Your task to perform on an android device: check data usage Image 0: 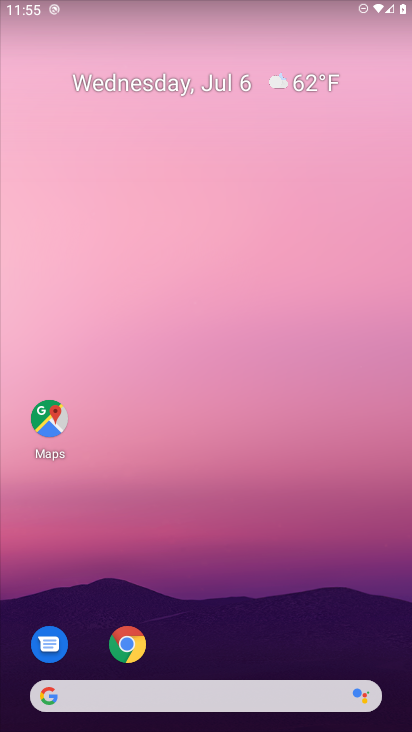
Step 0: press home button
Your task to perform on an android device: check data usage Image 1: 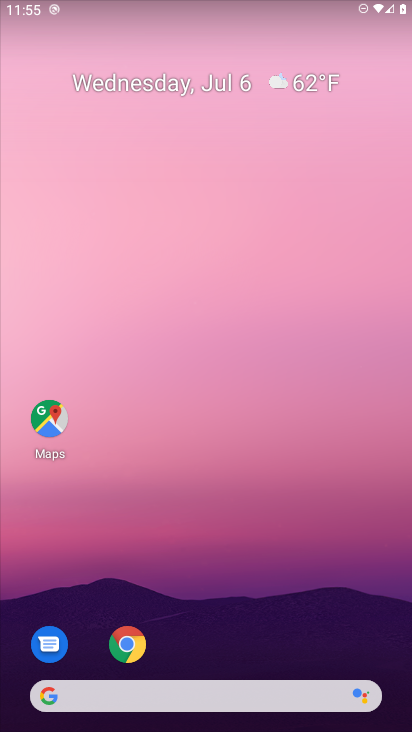
Step 1: drag from (256, 580) to (186, 16)
Your task to perform on an android device: check data usage Image 2: 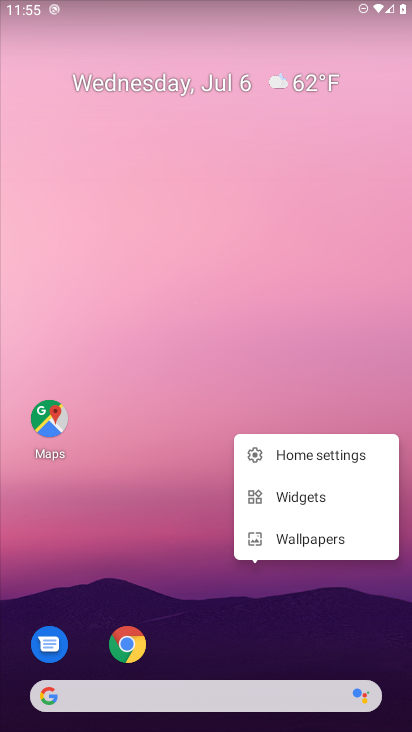
Step 2: drag from (160, 505) to (204, 45)
Your task to perform on an android device: check data usage Image 3: 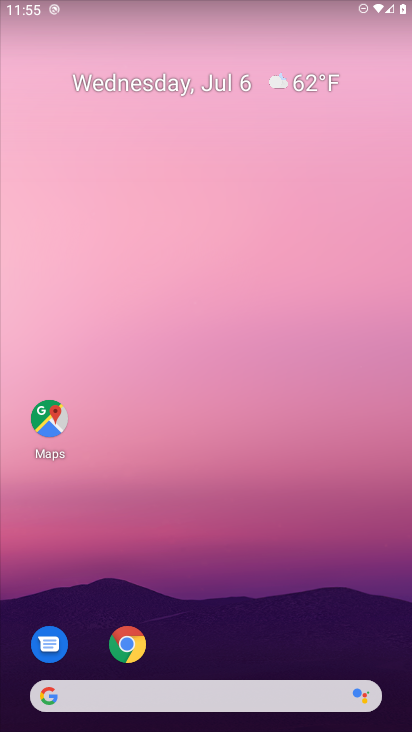
Step 3: drag from (253, 624) to (230, 10)
Your task to perform on an android device: check data usage Image 4: 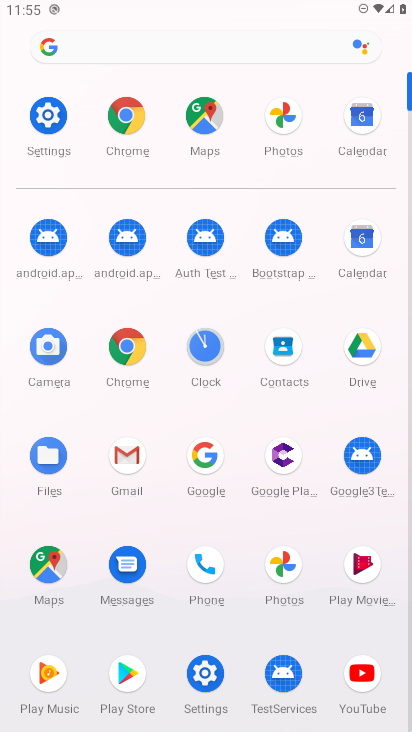
Step 4: drag from (190, 486) to (294, 26)
Your task to perform on an android device: check data usage Image 5: 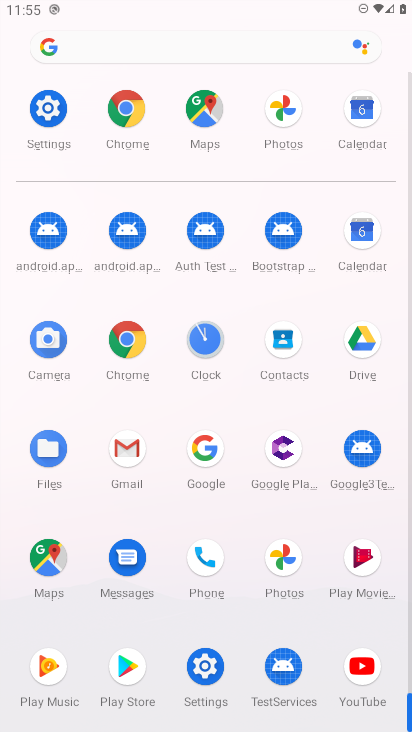
Step 5: click (48, 119)
Your task to perform on an android device: check data usage Image 6: 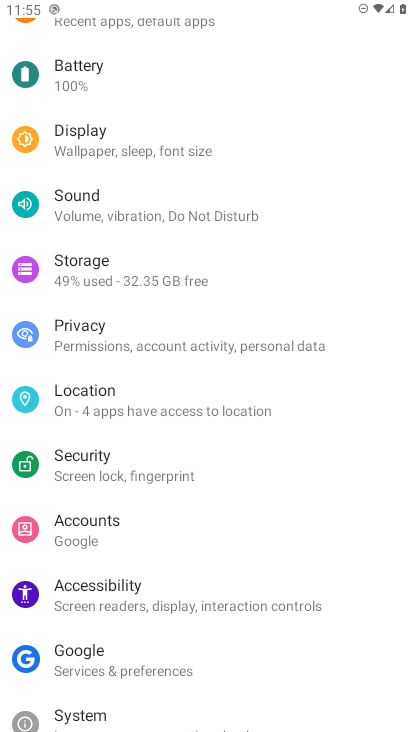
Step 6: drag from (260, 70) to (204, 591)
Your task to perform on an android device: check data usage Image 7: 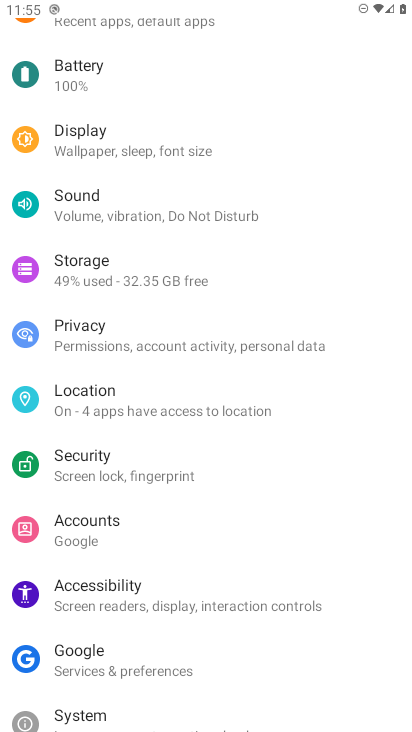
Step 7: drag from (247, 91) to (212, 694)
Your task to perform on an android device: check data usage Image 8: 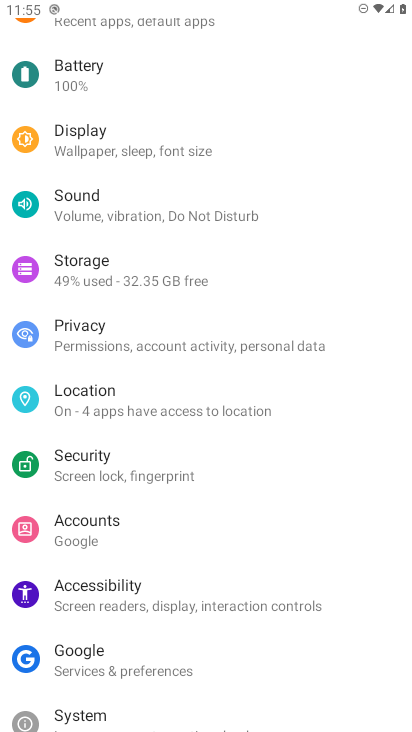
Step 8: drag from (343, 40) to (289, 593)
Your task to perform on an android device: check data usage Image 9: 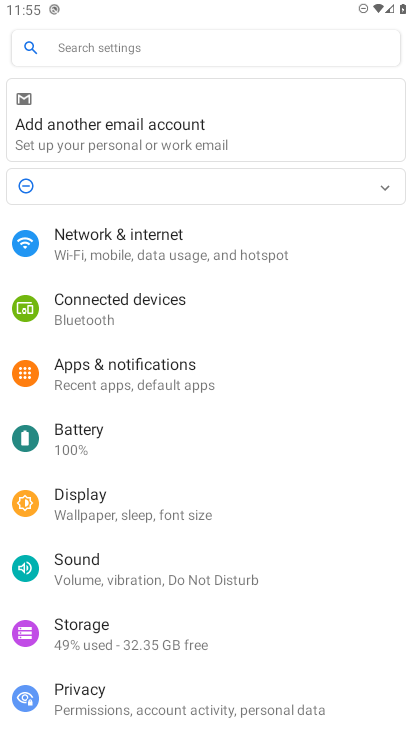
Step 9: drag from (247, 265) to (212, 510)
Your task to perform on an android device: check data usage Image 10: 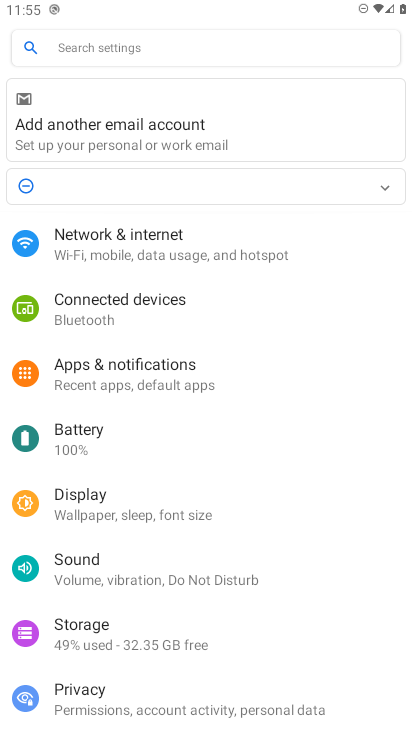
Step 10: click (140, 247)
Your task to perform on an android device: check data usage Image 11: 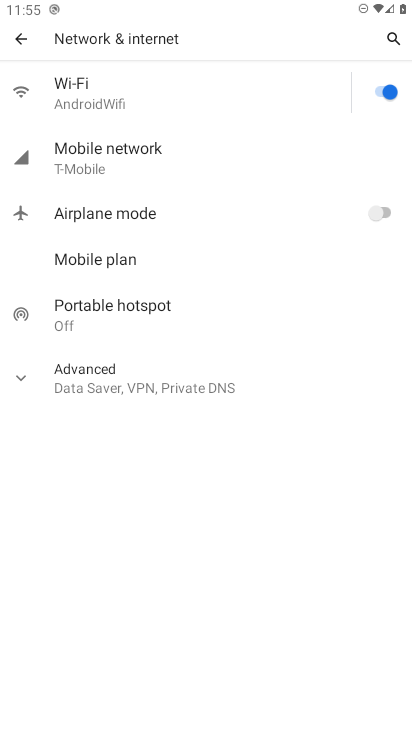
Step 11: click (133, 168)
Your task to perform on an android device: check data usage Image 12: 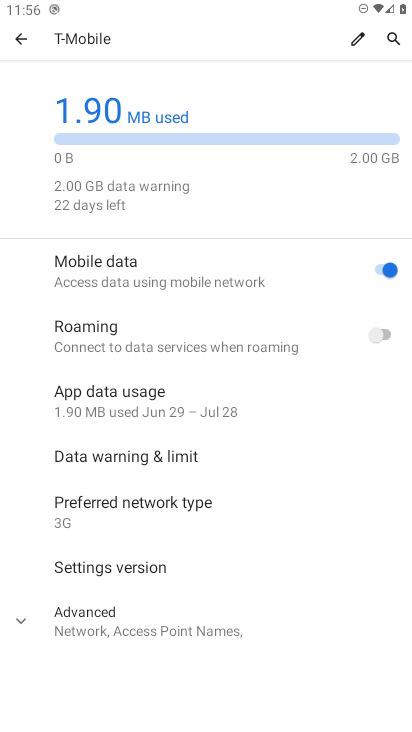
Step 12: click (187, 172)
Your task to perform on an android device: check data usage Image 13: 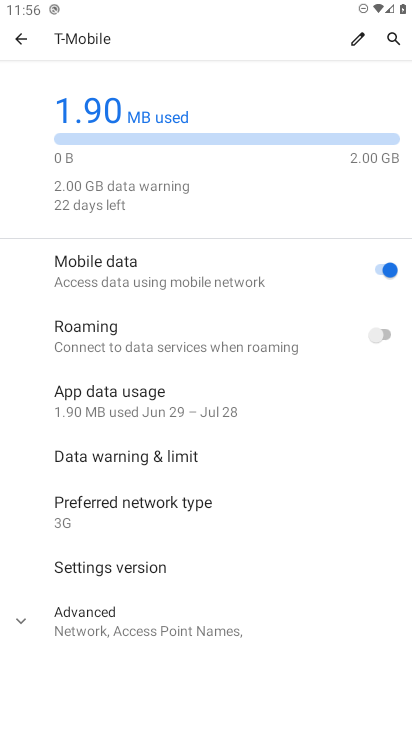
Step 13: task complete